Your task to perform on an android device: When is my next meeting? Image 0: 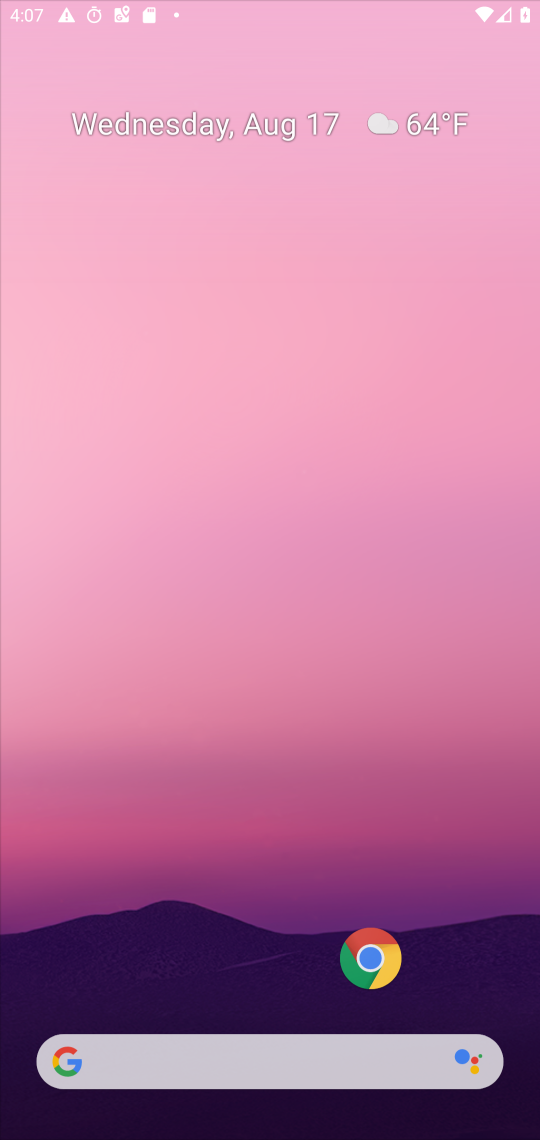
Step 0: click (236, 207)
Your task to perform on an android device: When is my next meeting? Image 1: 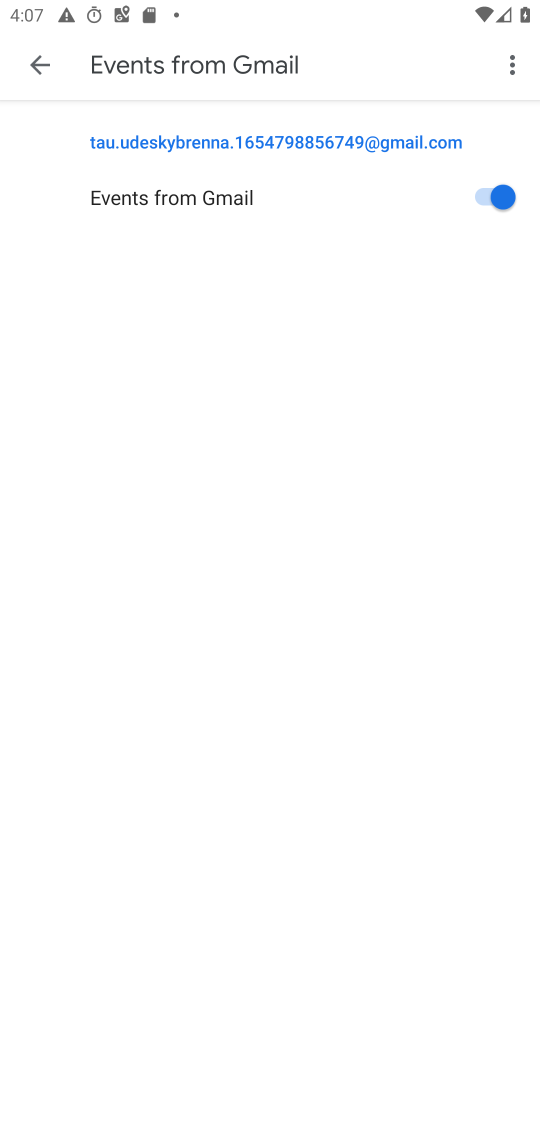
Step 1: press home button
Your task to perform on an android device: When is my next meeting? Image 2: 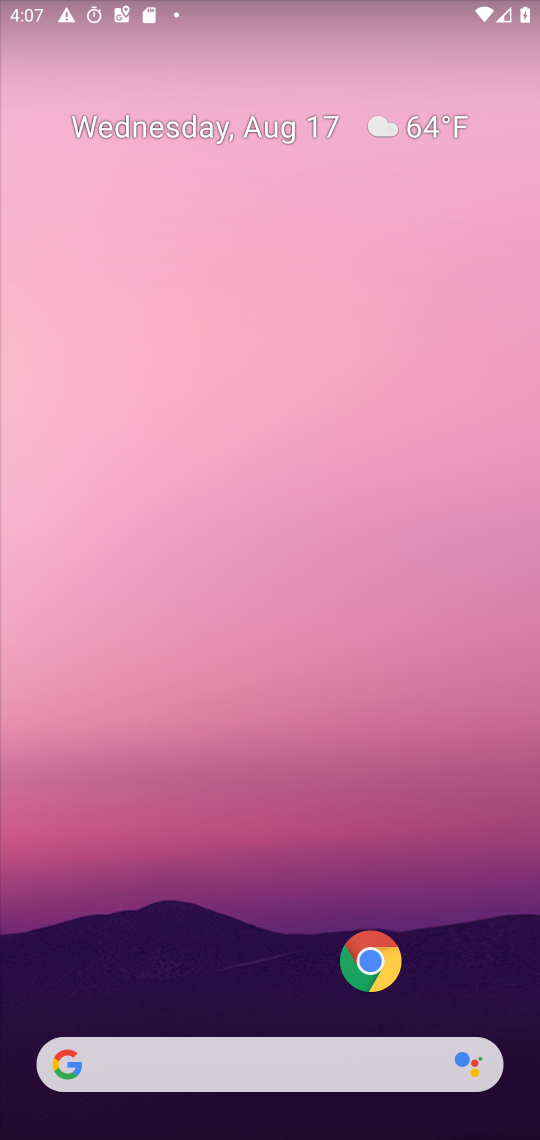
Step 2: drag from (238, 957) to (235, 67)
Your task to perform on an android device: When is my next meeting? Image 3: 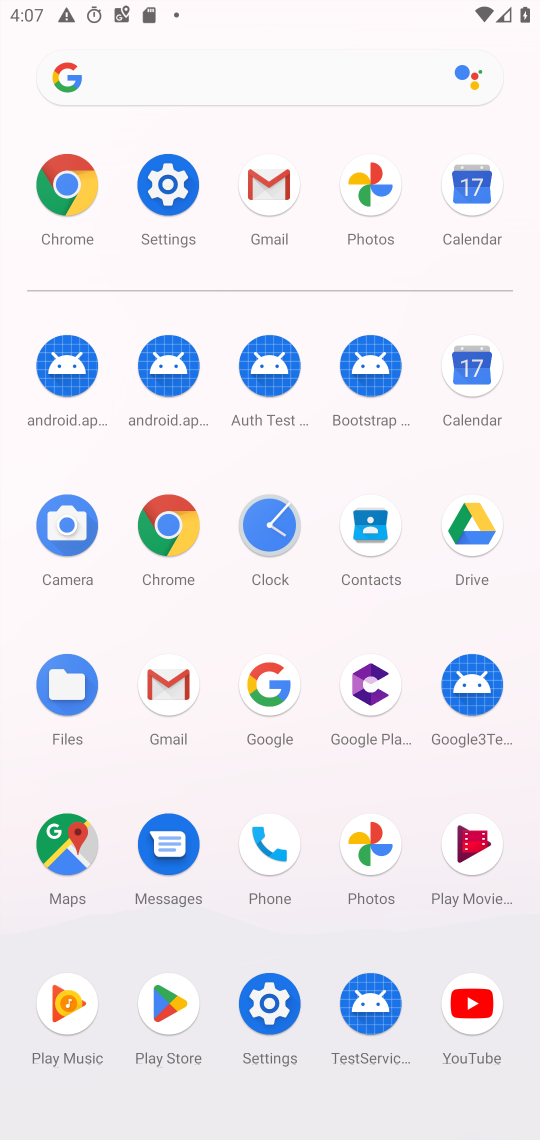
Step 3: click (487, 371)
Your task to perform on an android device: When is my next meeting? Image 4: 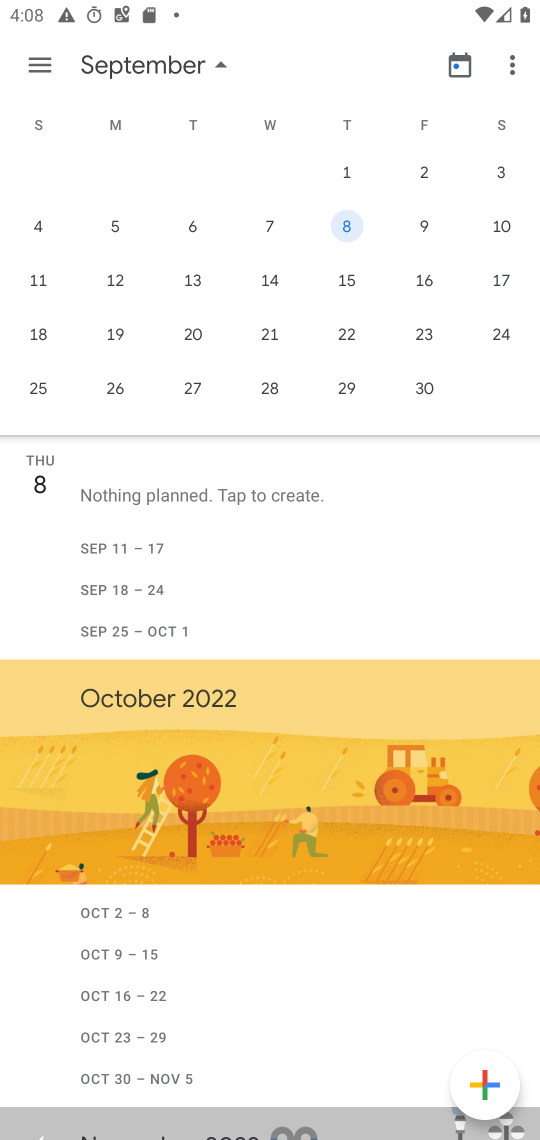
Step 4: drag from (129, 330) to (526, 342)
Your task to perform on an android device: When is my next meeting? Image 5: 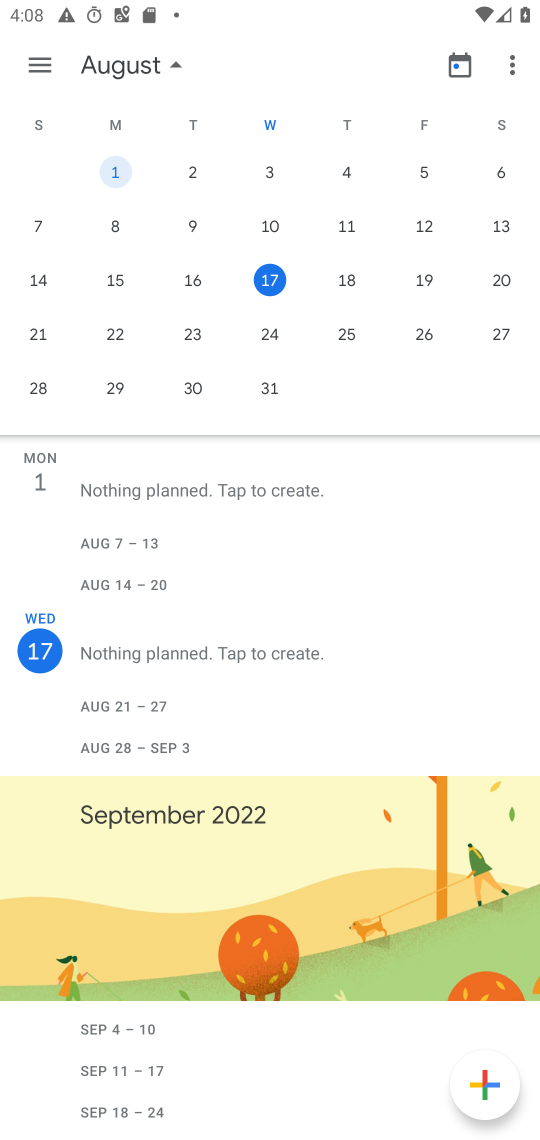
Step 5: click (276, 275)
Your task to perform on an android device: When is my next meeting? Image 6: 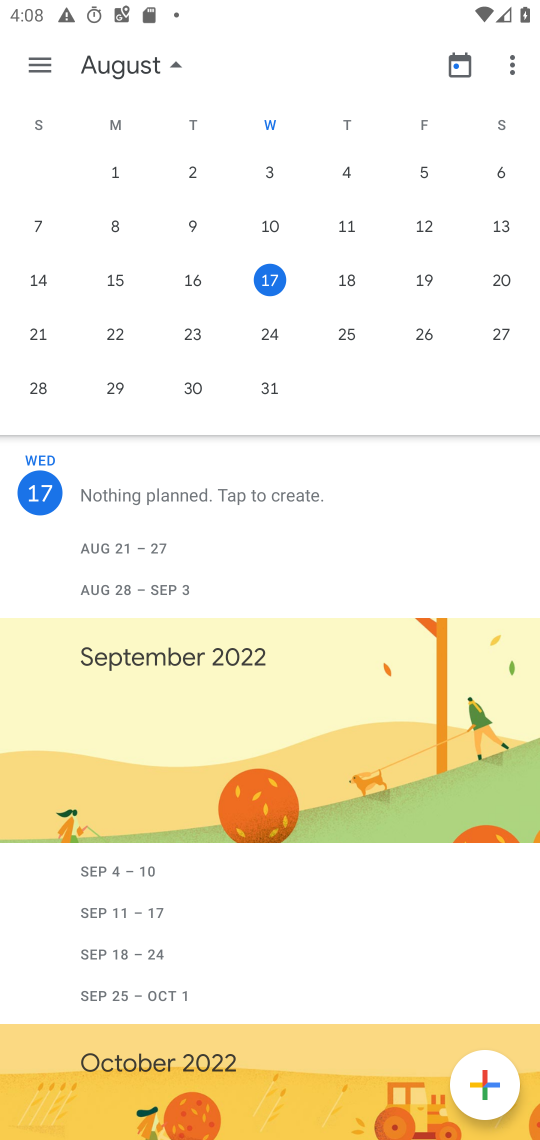
Step 6: task complete